Your task to perform on an android device: toggle airplane mode Image 0: 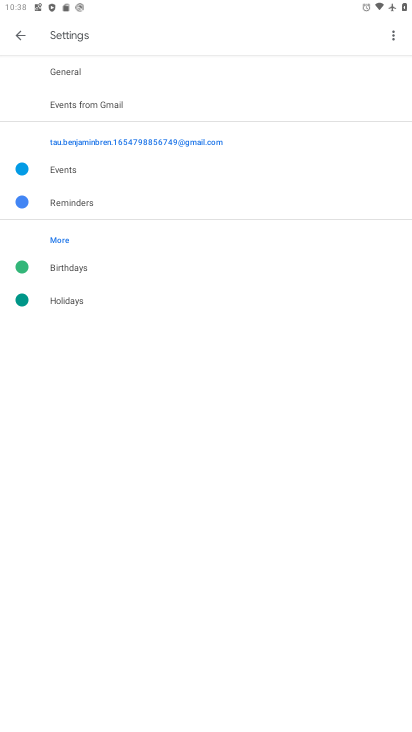
Step 0: click (23, 37)
Your task to perform on an android device: toggle airplane mode Image 1: 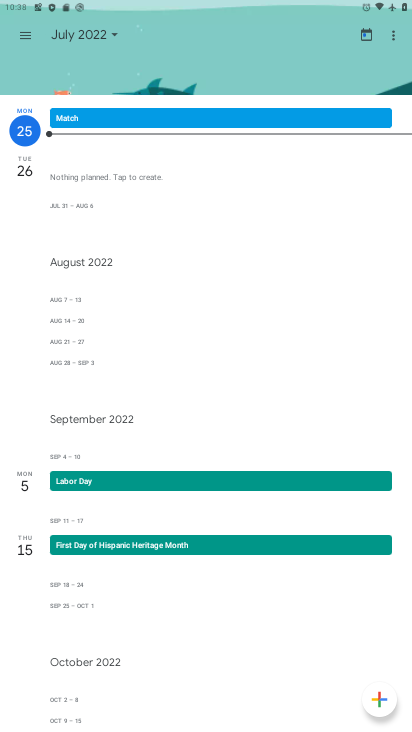
Step 1: press home button
Your task to perform on an android device: toggle airplane mode Image 2: 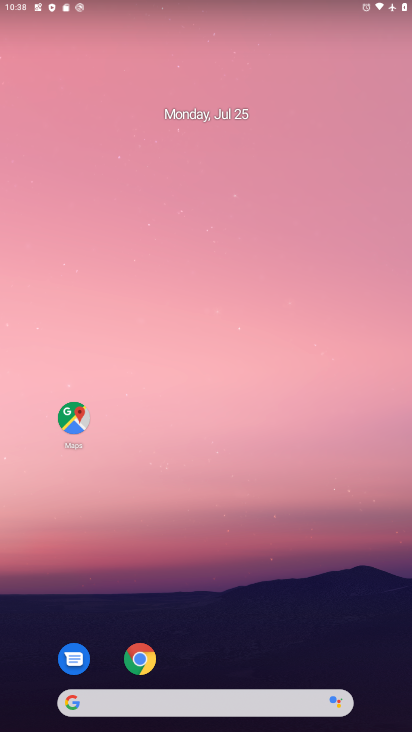
Step 2: drag from (210, 672) to (173, 69)
Your task to perform on an android device: toggle airplane mode Image 3: 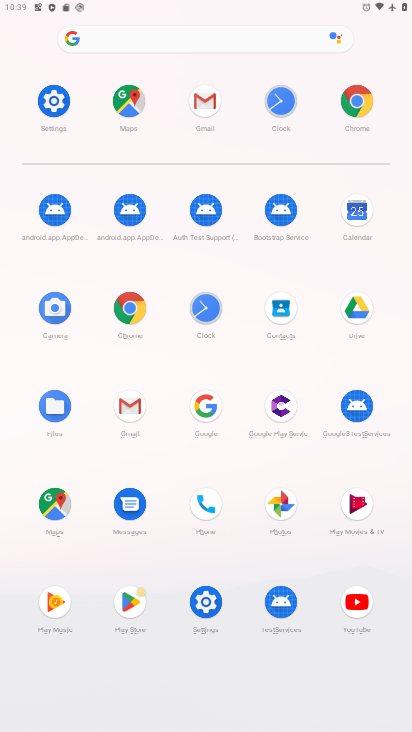
Step 3: click (200, 592)
Your task to perform on an android device: toggle airplane mode Image 4: 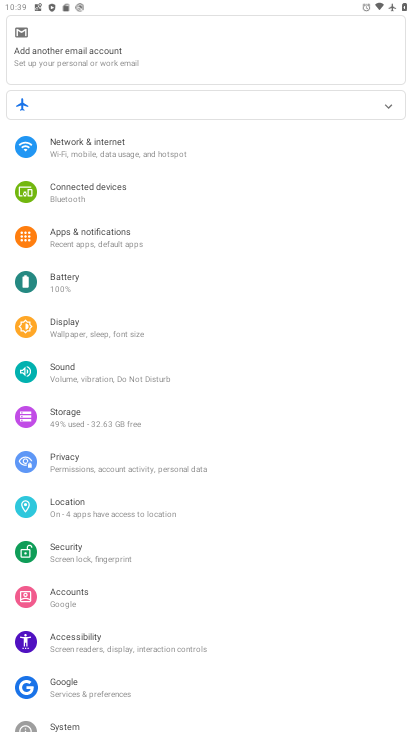
Step 4: click (95, 150)
Your task to perform on an android device: toggle airplane mode Image 5: 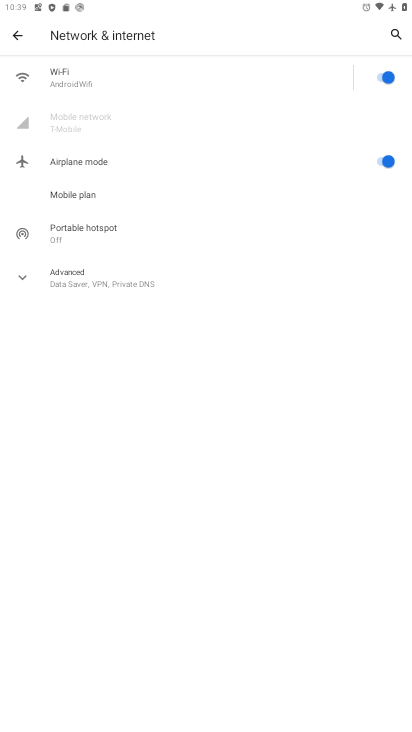
Step 5: click (381, 167)
Your task to perform on an android device: toggle airplane mode Image 6: 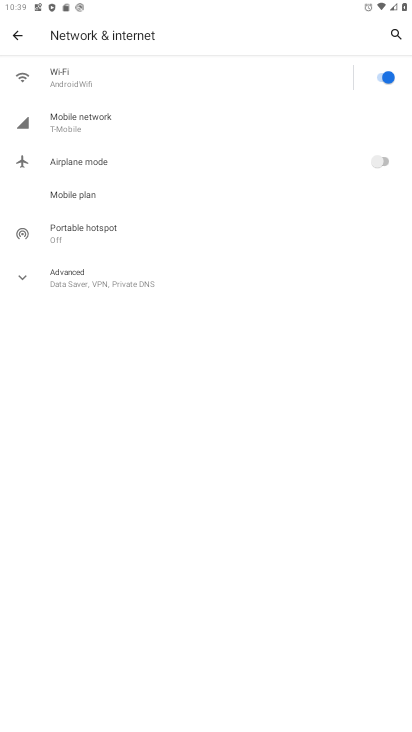
Step 6: task complete